Your task to perform on an android device: check data usage Image 0: 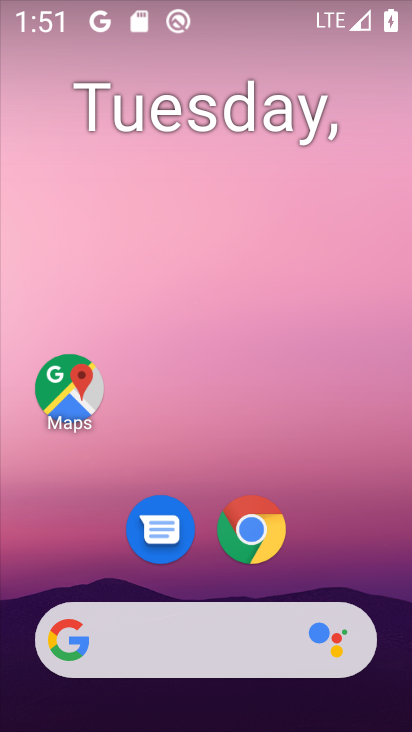
Step 0: drag from (381, 582) to (331, 83)
Your task to perform on an android device: check data usage Image 1: 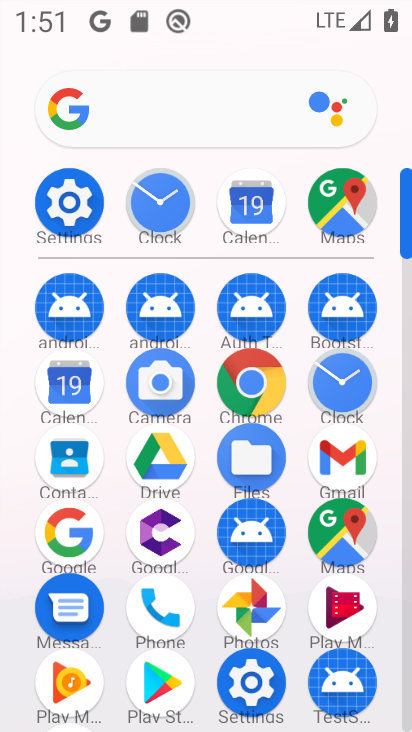
Step 1: click (251, 684)
Your task to perform on an android device: check data usage Image 2: 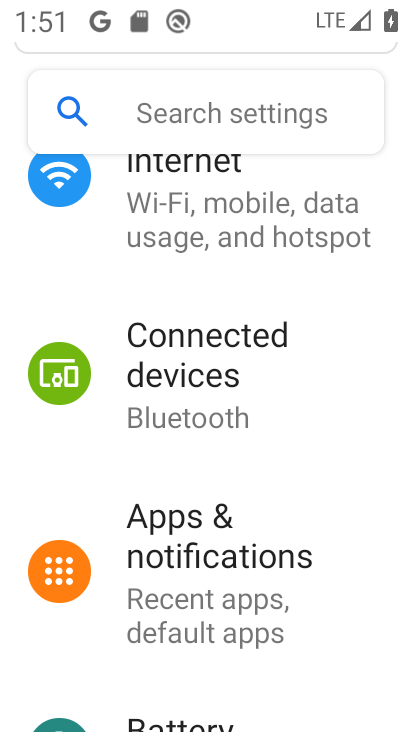
Step 2: click (188, 193)
Your task to perform on an android device: check data usage Image 3: 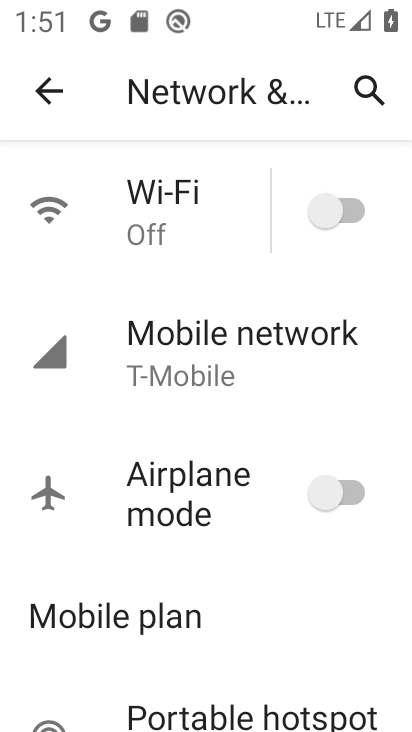
Step 3: click (164, 335)
Your task to perform on an android device: check data usage Image 4: 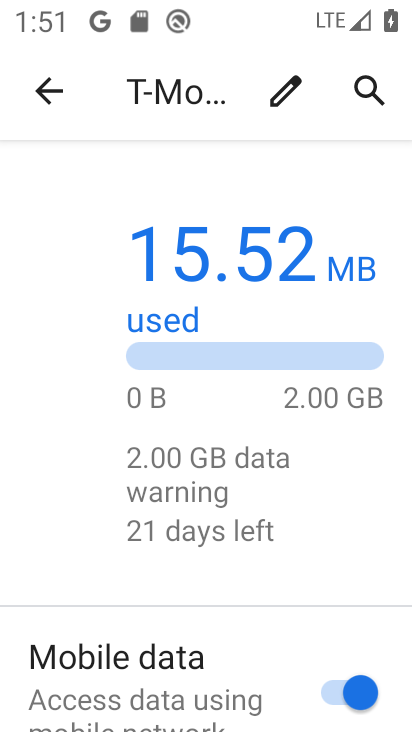
Step 4: task complete